Your task to perform on an android device: Open Google Maps and go to "Timeline" Image 0: 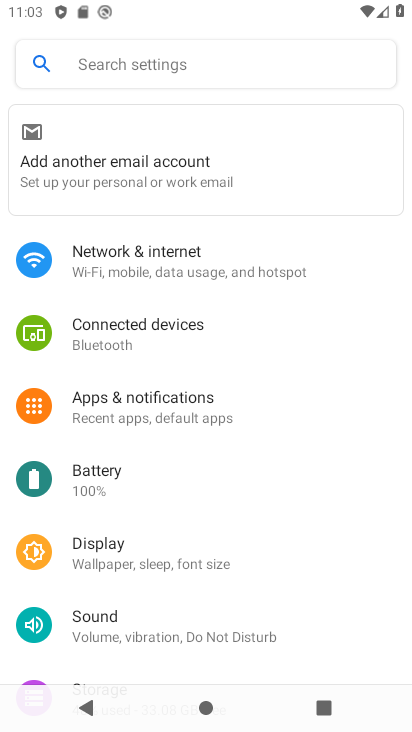
Step 0: press home button
Your task to perform on an android device: Open Google Maps and go to "Timeline" Image 1: 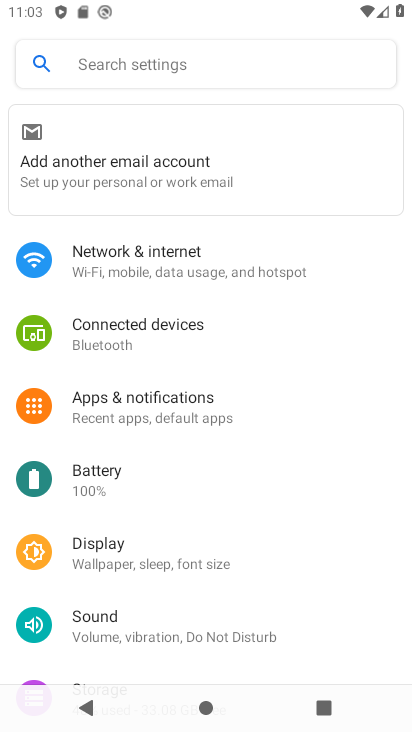
Step 1: press home button
Your task to perform on an android device: Open Google Maps and go to "Timeline" Image 2: 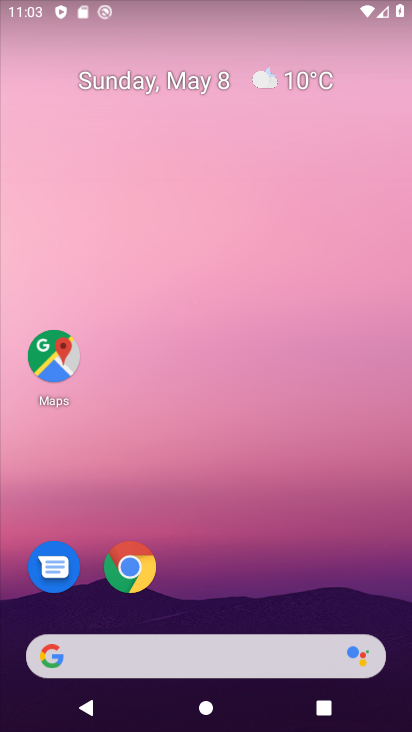
Step 2: drag from (240, 617) to (349, 72)
Your task to perform on an android device: Open Google Maps and go to "Timeline" Image 3: 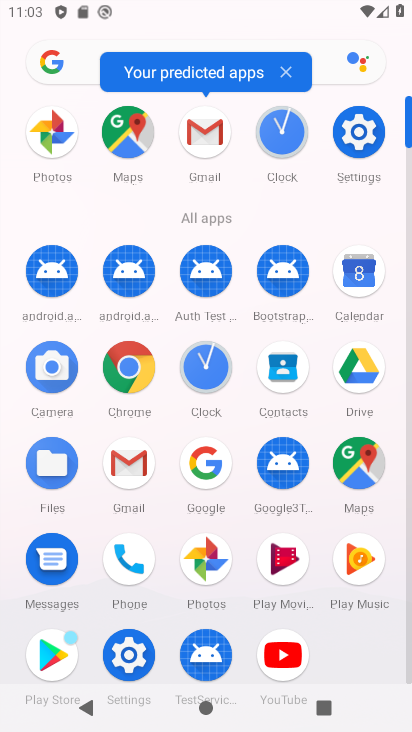
Step 3: click (364, 477)
Your task to perform on an android device: Open Google Maps and go to "Timeline" Image 4: 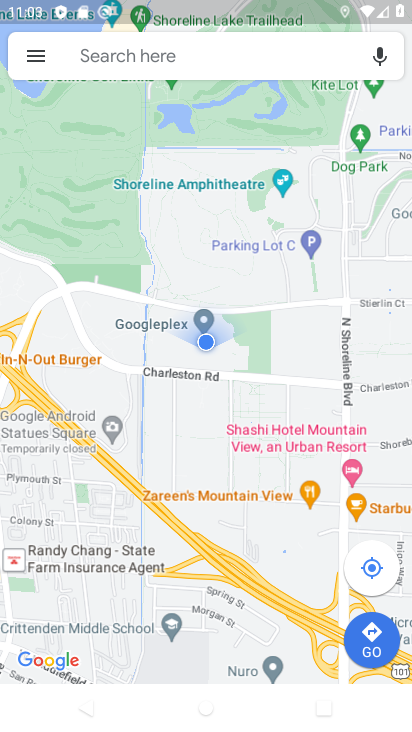
Step 4: click (40, 57)
Your task to perform on an android device: Open Google Maps and go to "Timeline" Image 5: 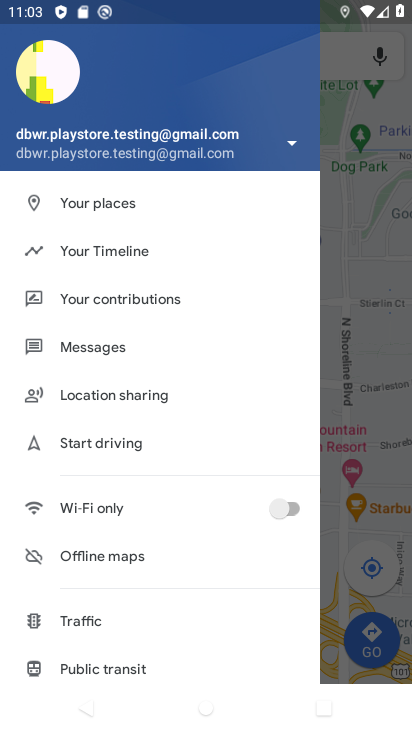
Step 5: click (148, 253)
Your task to perform on an android device: Open Google Maps and go to "Timeline" Image 6: 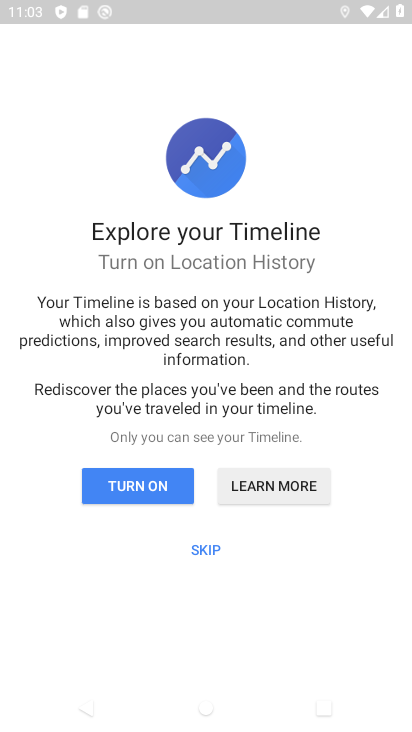
Step 6: click (223, 547)
Your task to perform on an android device: Open Google Maps and go to "Timeline" Image 7: 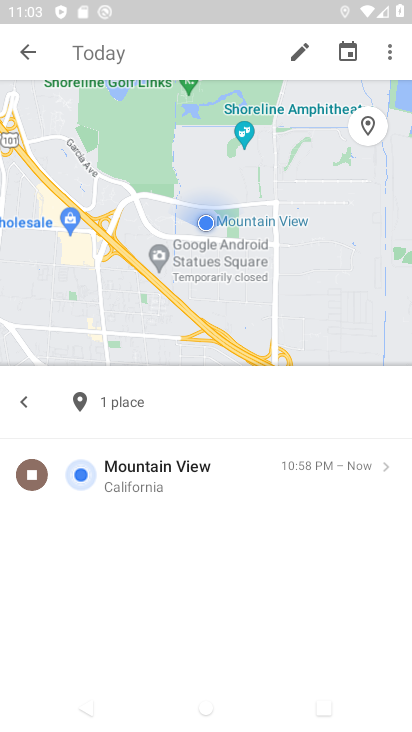
Step 7: task complete